Your task to perform on an android device: open app "PUBG MOBILE" Image 0: 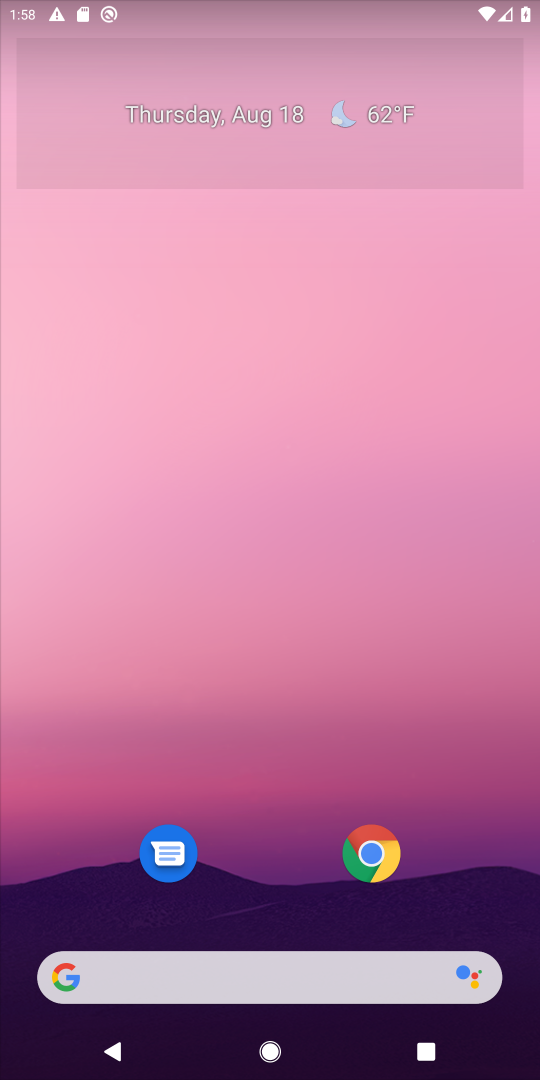
Step 0: drag from (524, 897) to (215, 16)
Your task to perform on an android device: open app "PUBG MOBILE" Image 1: 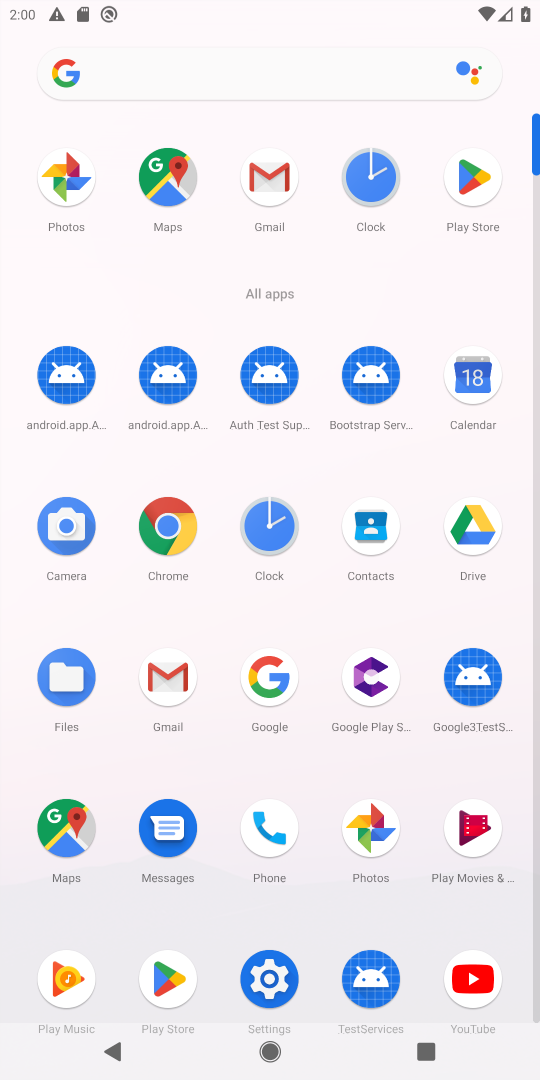
Step 1: click (458, 198)
Your task to perform on an android device: open app "PUBG MOBILE" Image 2: 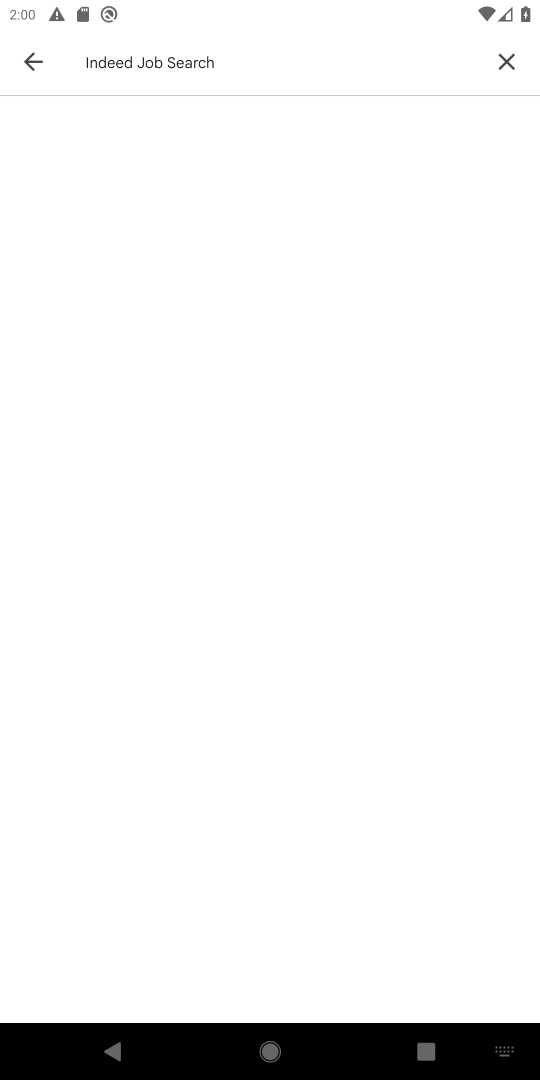
Step 2: click (506, 57)
Your task to perform on an android device: open app "PUBG MOBILE" Image 3: 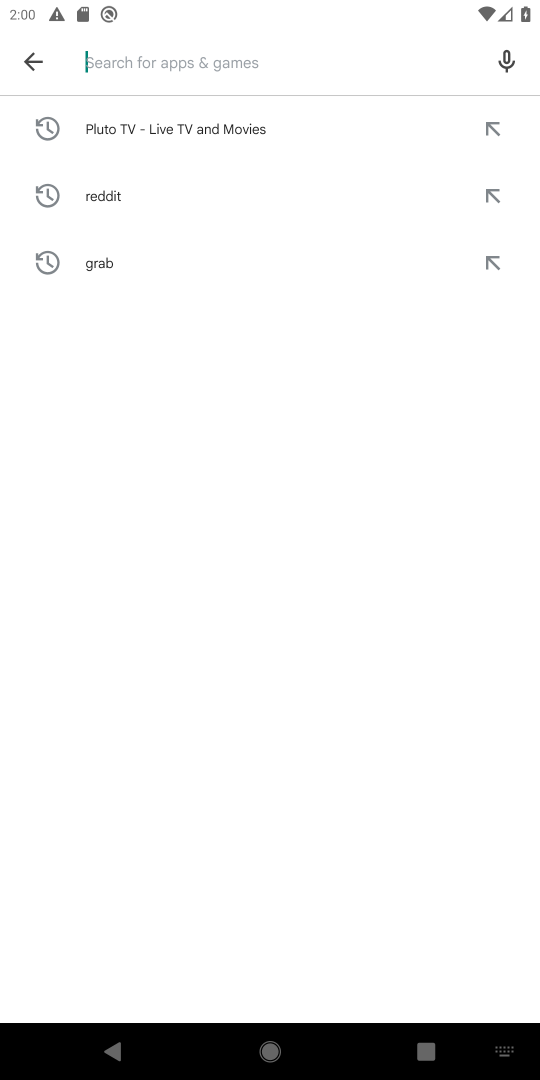
Step 3: type "PUBG MOBILE"
Your task to perform on an android device: open app "PUBG MOBILE" Image 4: 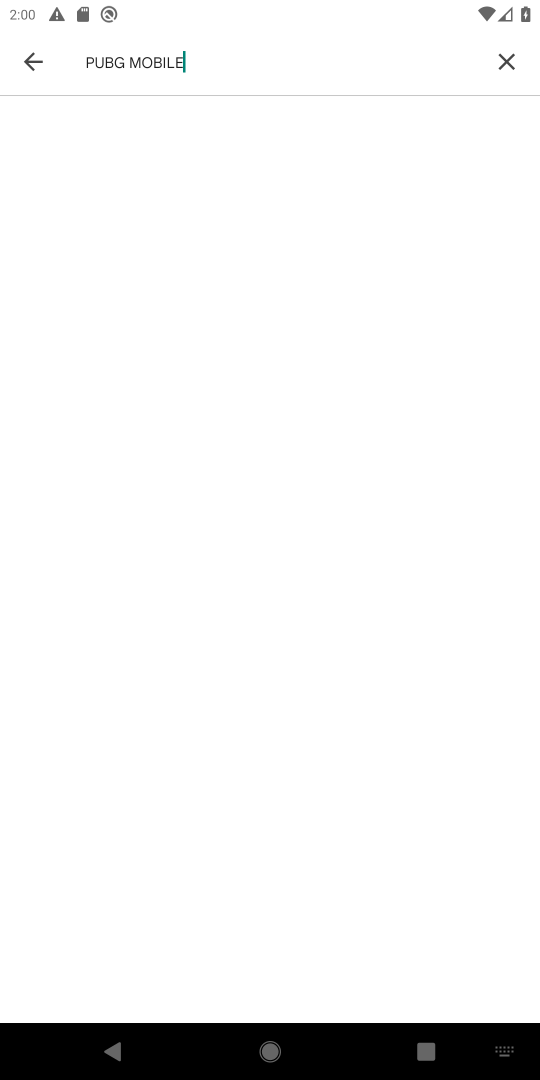
Step 4: task complete